Your task to perform on an android device: turn on javascript in the chrome app Image 0: 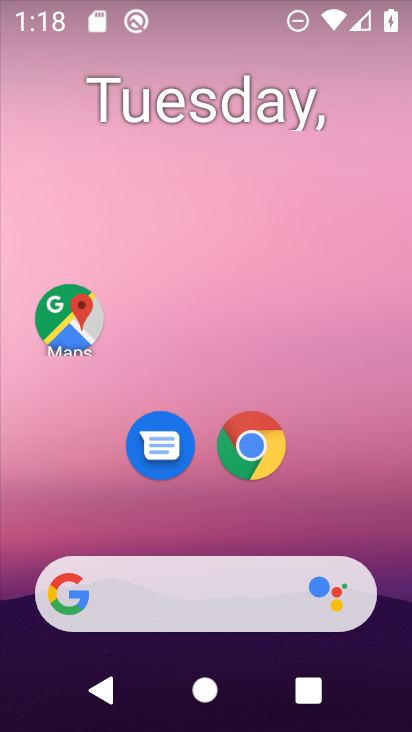
Step 0: click (262, 447)
Your task to perform on an android device: turn on javascript in the chrome app Image 1: 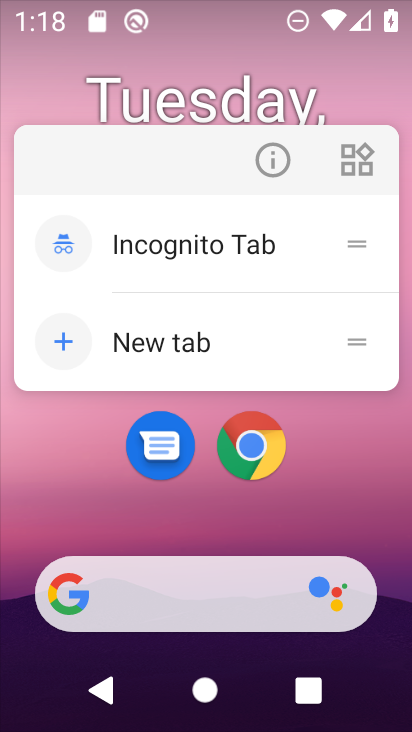
Step 1: click (258, 472)
Your task to perform on an android device: turn on javascript in the chrome app Image 2: 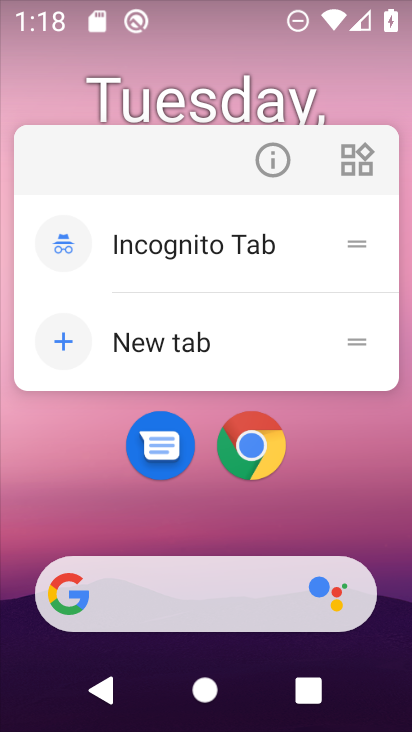
Step 2: click (198, 355)
Your task to perform on an android device: turn on javascript in the chrome app Image 3: 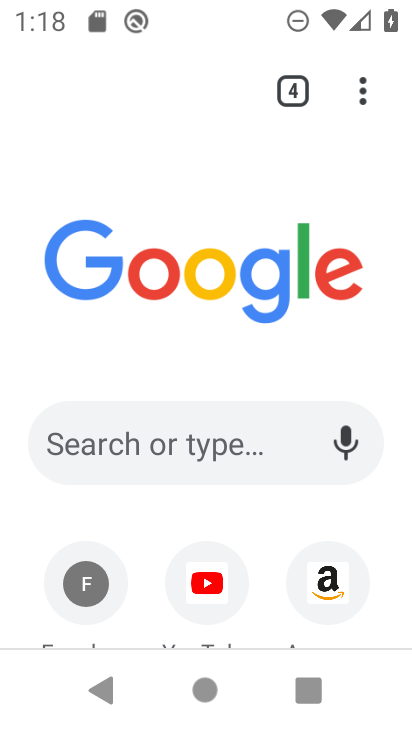
Step 3: click (356, 90)
Your task to perform on an android device: turn on javascript in the chrome app Image 4: 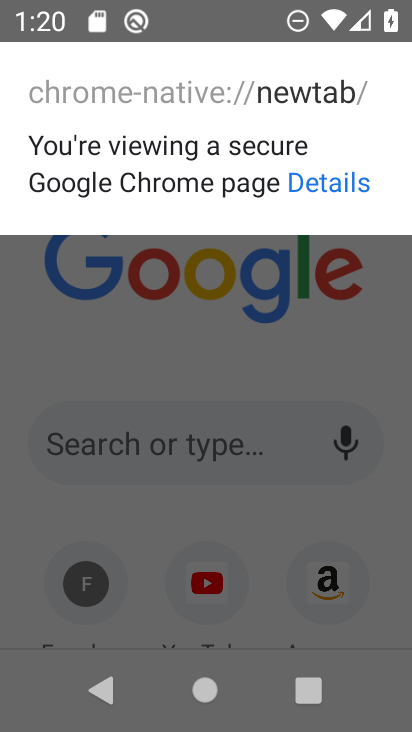
Step 4: task complete